Your task to perform on an android device: move an email to a new category in the gmail app Image 0: 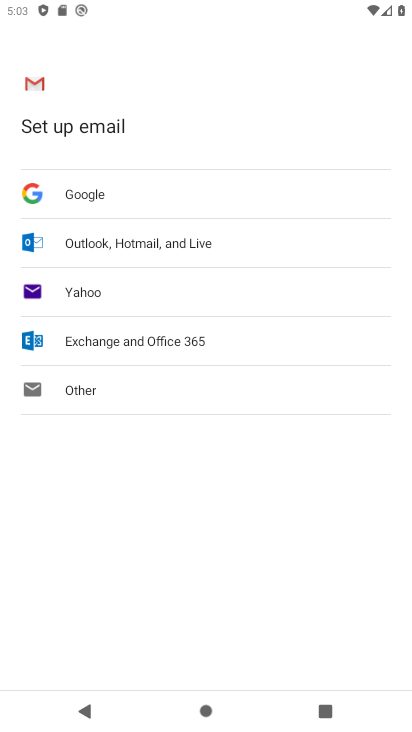
Step 0: press home button
Your task to perform on an android device: move an email to a new category in the gmail app Image 1: 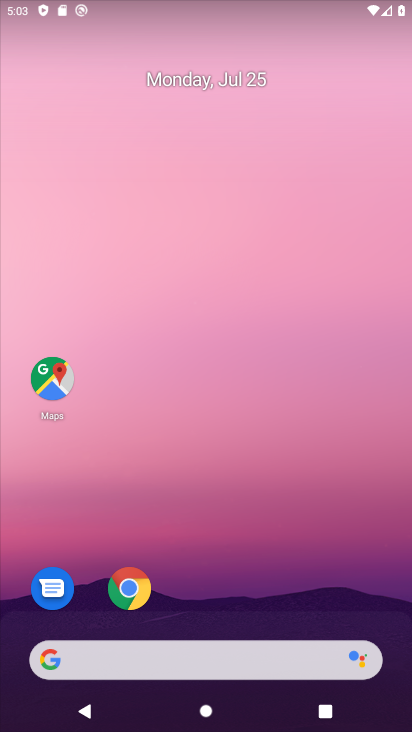
Step 1: drag from (256, 653) to (385, 77)
Your task to perform on an android device: move an email to a new category in the gmail app Image 2: 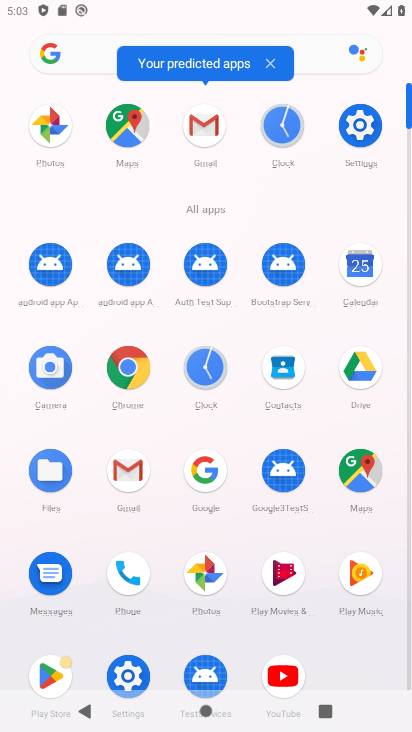
Step 2: click (136, 470)
Your task to perform on an android device: move an email to a new category in the gmail app Image 3: 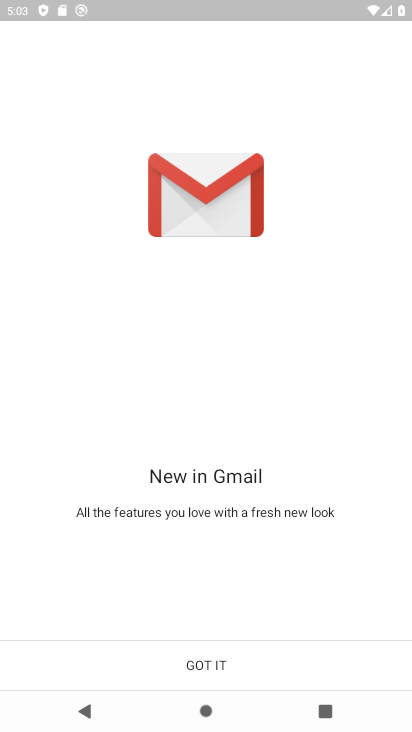
Step 3: click (210, 661)
Your task to perform on an android device: move an email to a new category in the gmail app Image 4: 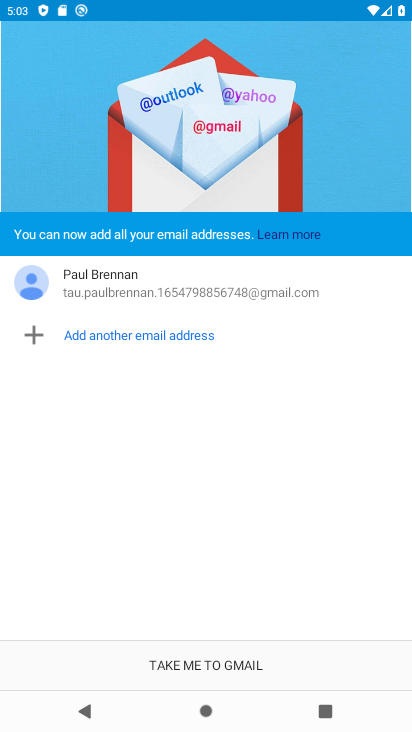
Step 4: click (210, 661)
Your task to perform on an android device: move an email to a new category in the gmail app Image 5: 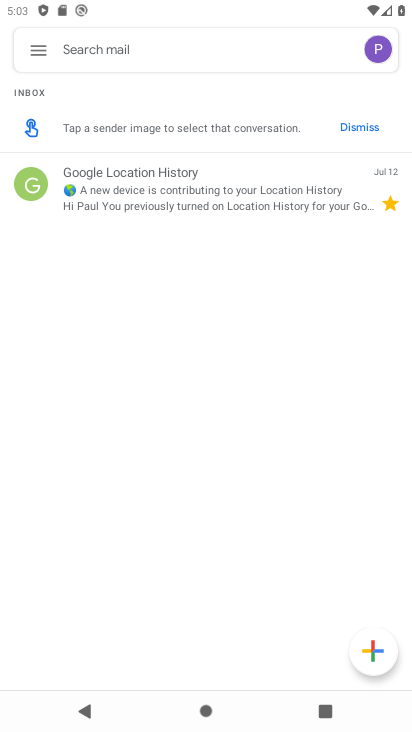
Step 5: task complete